Your task to perform on an android device: Open maps Image 0: 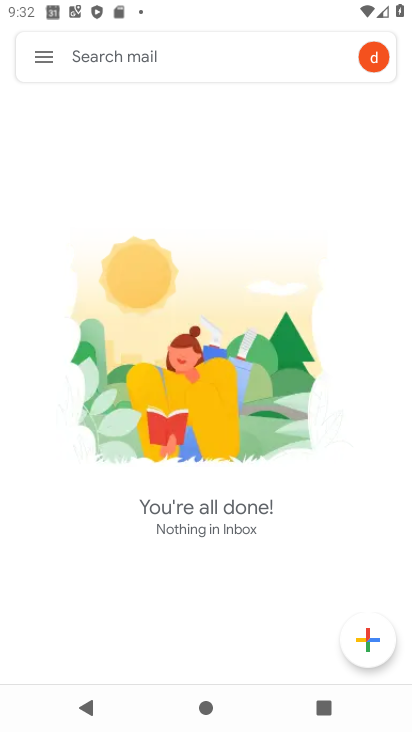
Step 0: press home button
Your task to perform on an android device: Open maps Image 1: 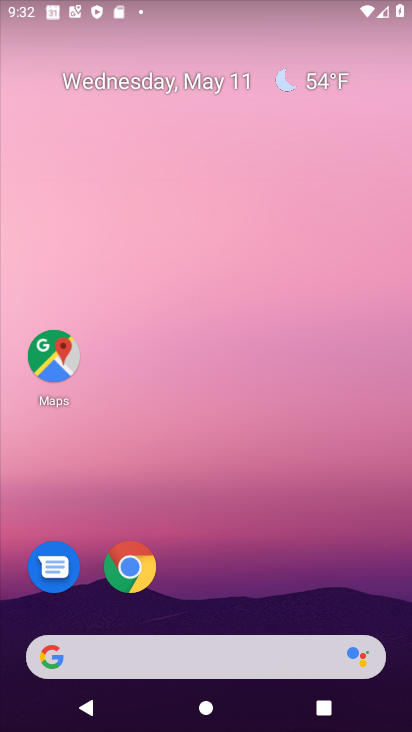
Step 1: click (52, 353)
Your task to perform on an android device: Open maps Image 2: 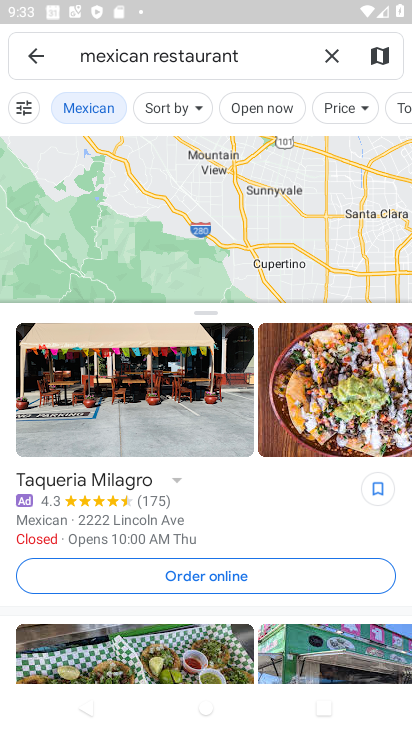
Step 2: task complete